Your task to perform on an android device: change the clock style Image 0: 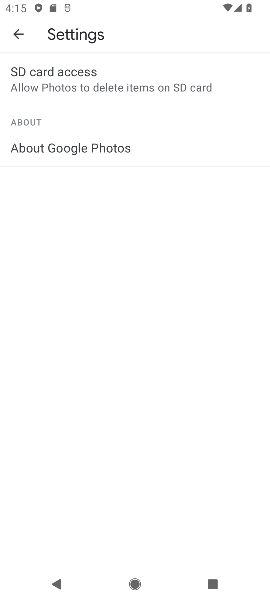
Step 0: press home button
Your task to perform on an android device: change the clock style Image 1: 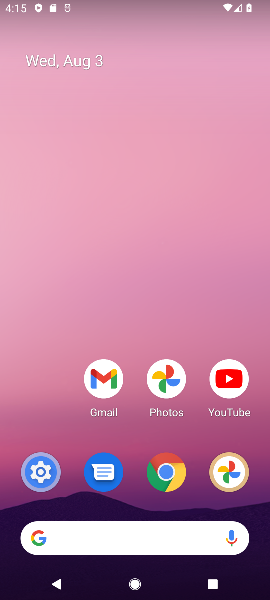
Step 1: drag from (194, 434) to (232, 102)
Your task to perform on an android device: change the clock style Image 2: 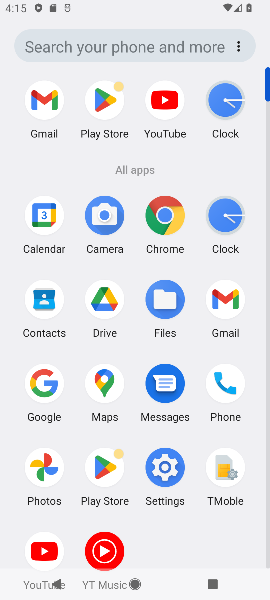
Step 2: click (236, 220)
Your task to perform on an android device: change the clock style Image 3: 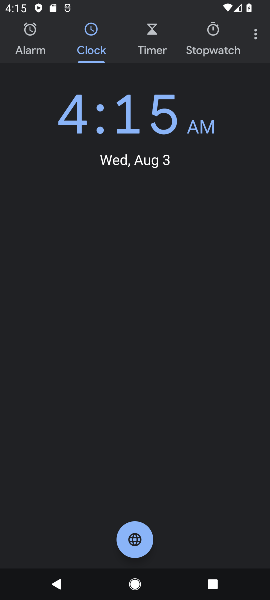
Step 3: click (257, 36)
Your task to perform on an android device: change the clock style Image 4: 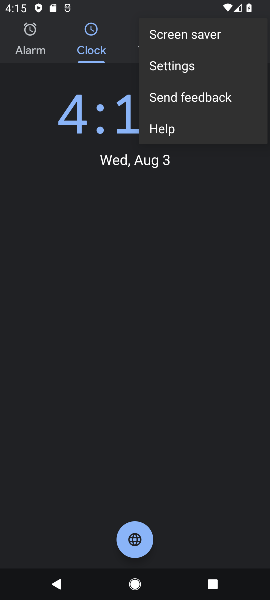
Step 4: click (170, 66)
Your task to perform on an android device: change the clock style Image 5: 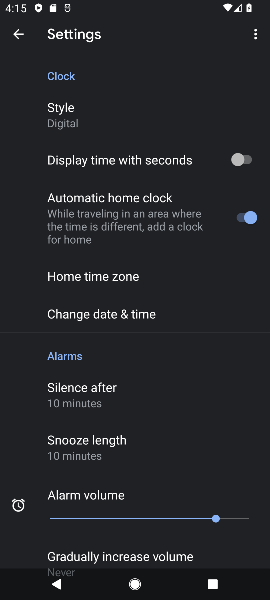
Step 5: click (81, 122)
Your task to perform on an android device: change the clock style Image 6: 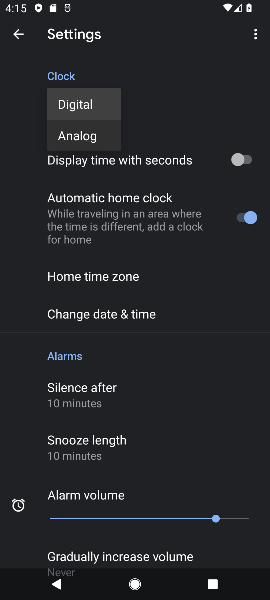
Step 6: click (78, 138)
Your task to perform on an android device: change the clock style Image 7: 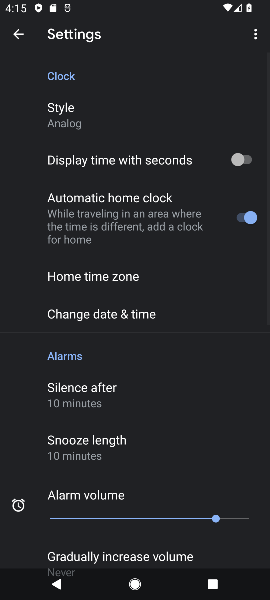
Step 7: task complete